Your task to perform on an android device: Clear the shopping cart on bestbuy. Image 0: 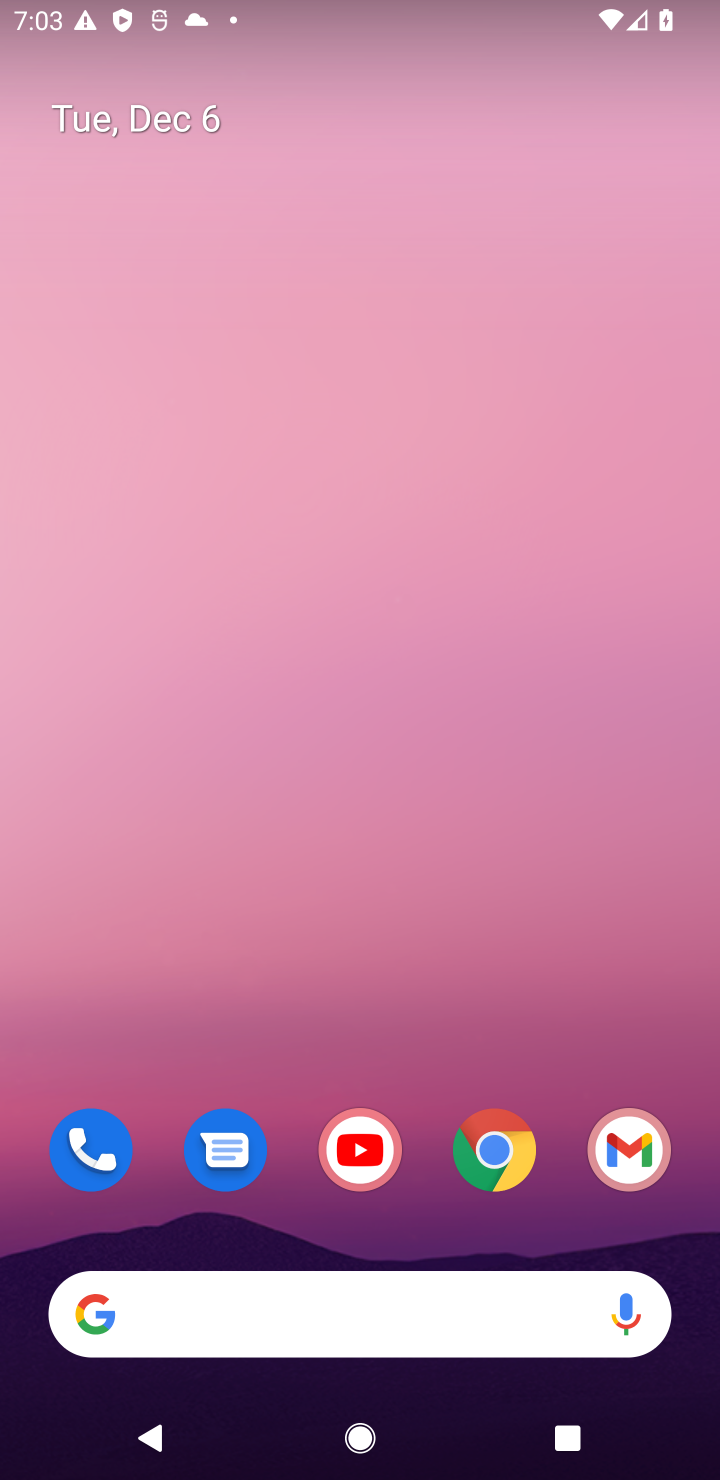
Step 0: click (496, 1159)
Your task to perform on an android device: Clear the shopping cart on bestbuy. Image 1: 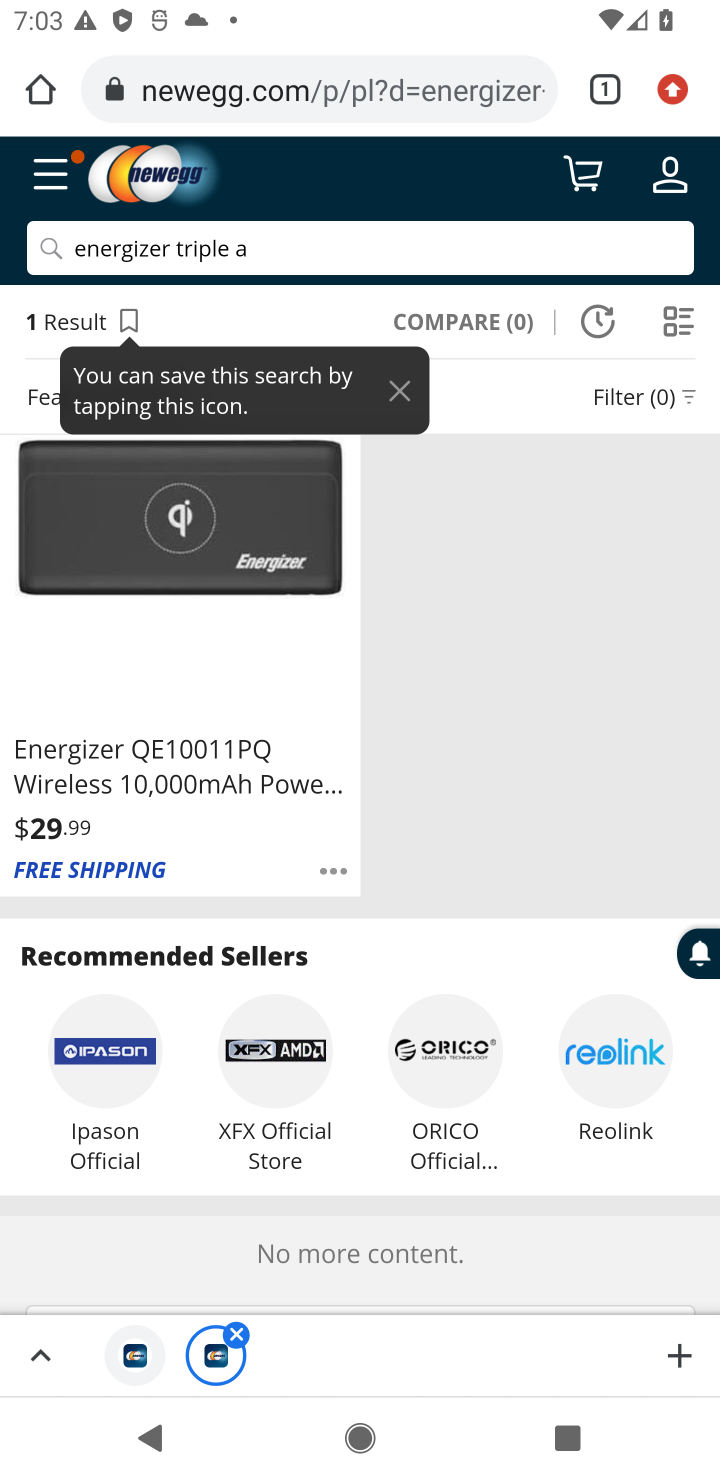
Step 1: click (343, 96)
Your task to perform on an android device: Clear the shopping cart on bestbuy. Image 2: 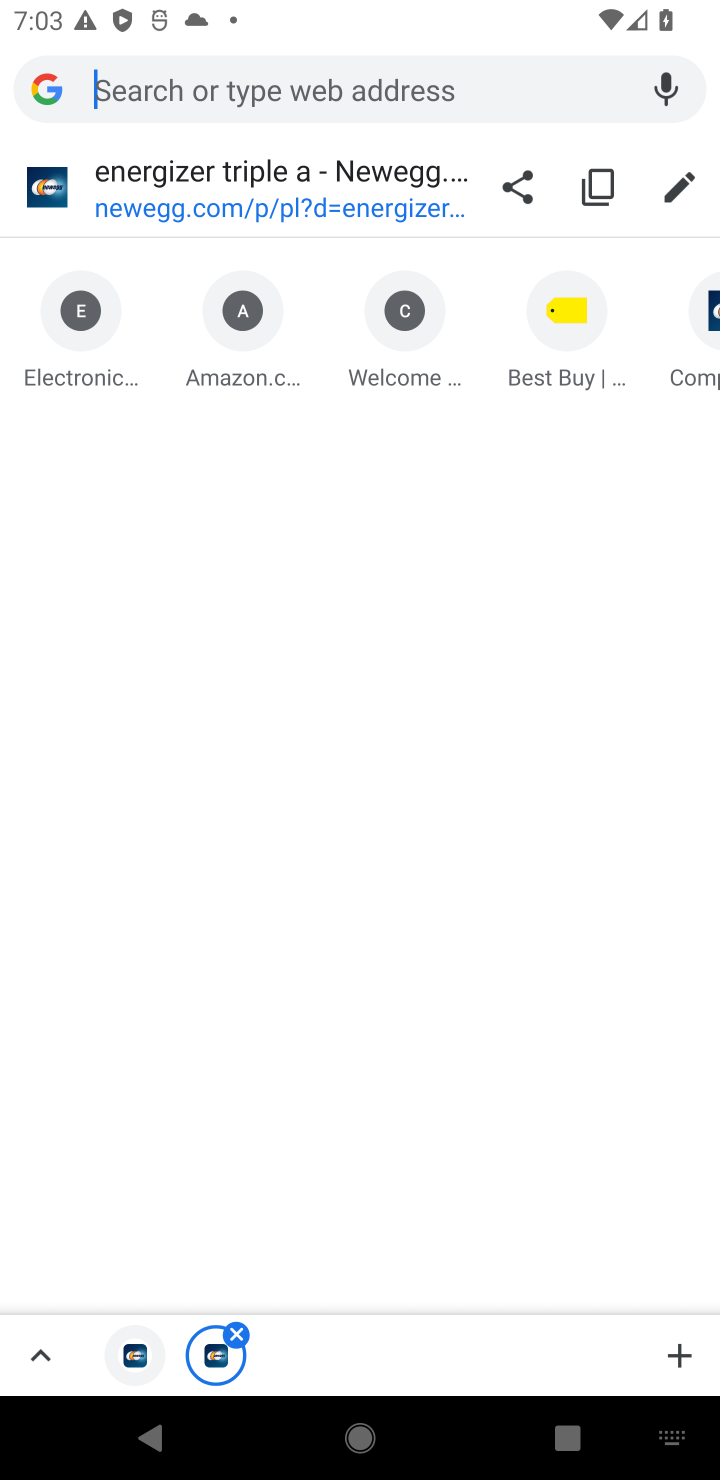
Step 2: click (564, 322)
Your task to perform on an android device: Clear the shopping cart on bestbuy. Image 3: 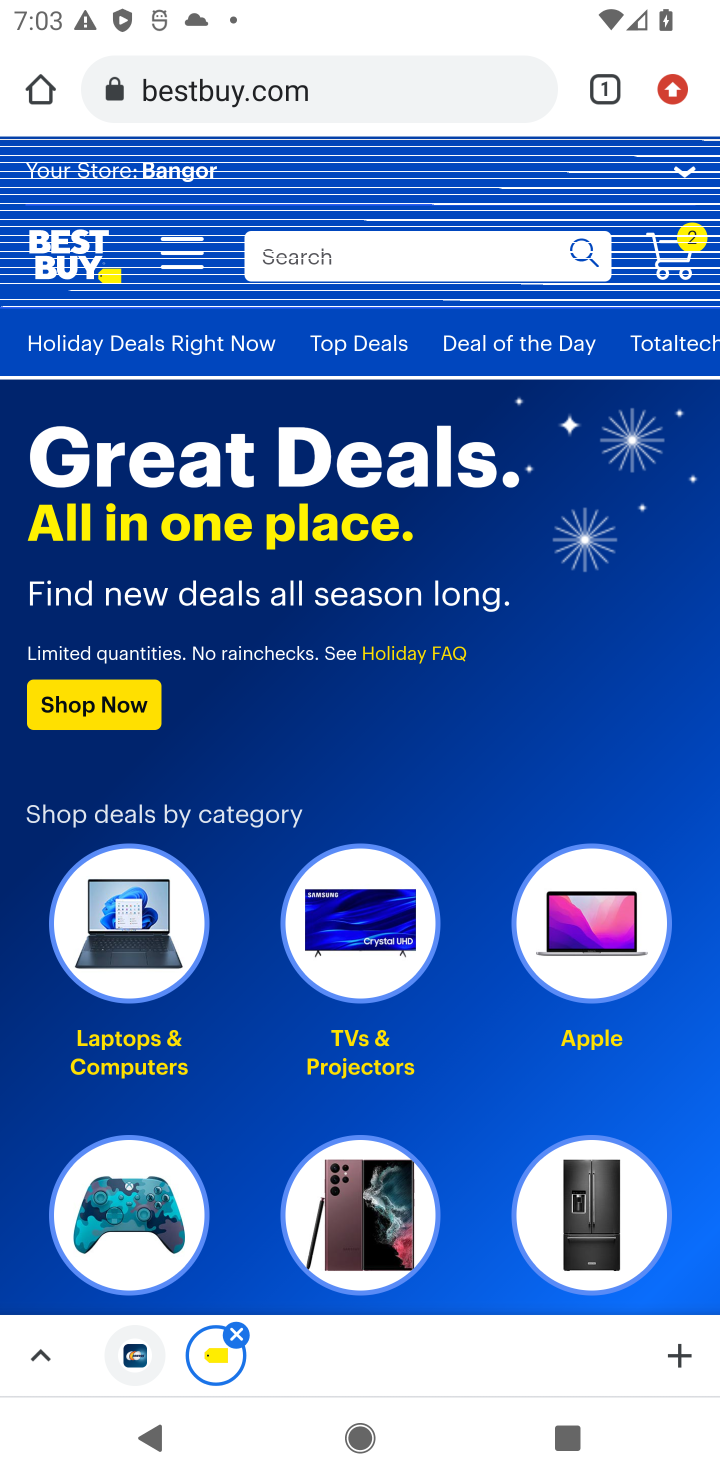
Step 3: click (665, 262)
Your task to perform on an android device: Clear the shopping cart on bestbuy. Image 4: 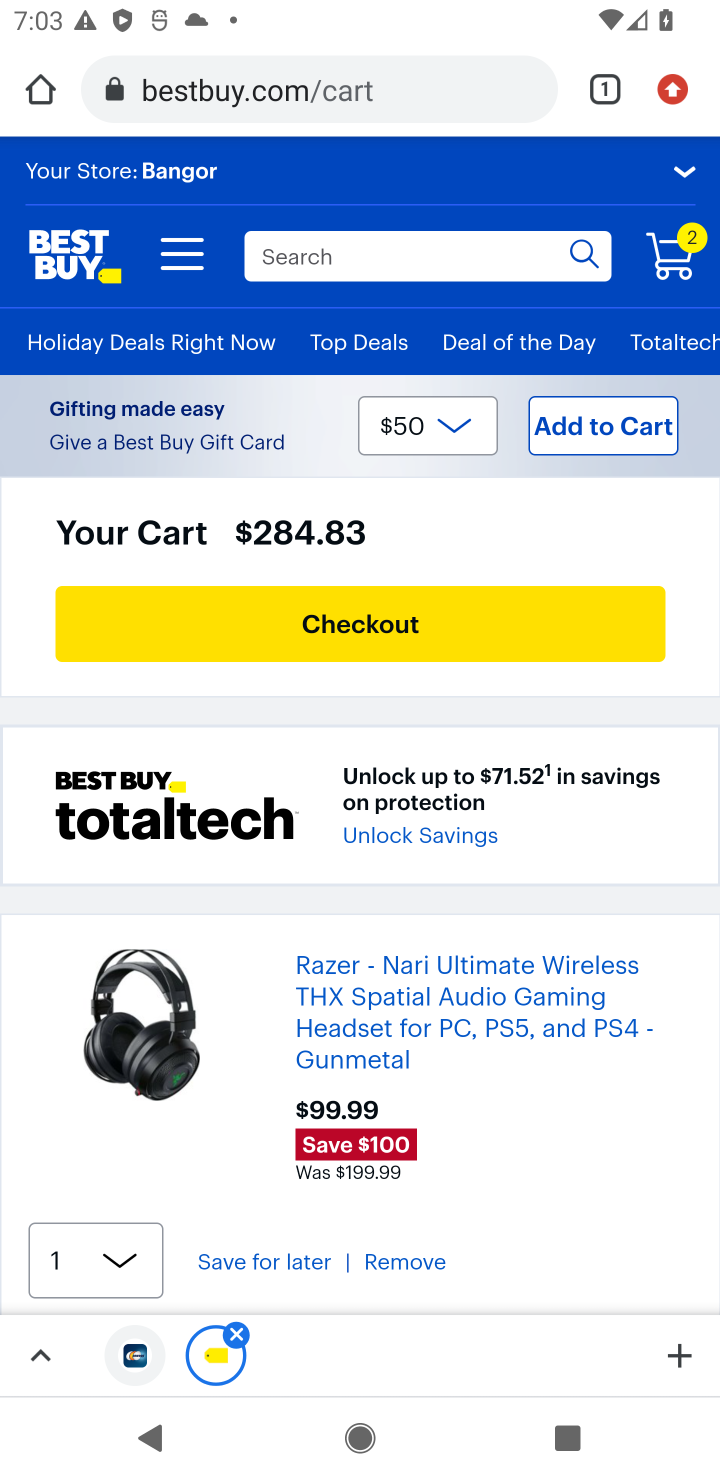
Step 4: click (387, 1264)
Your task to perform on an android device: Clear the shopping cart on bestbuy. Image 5: 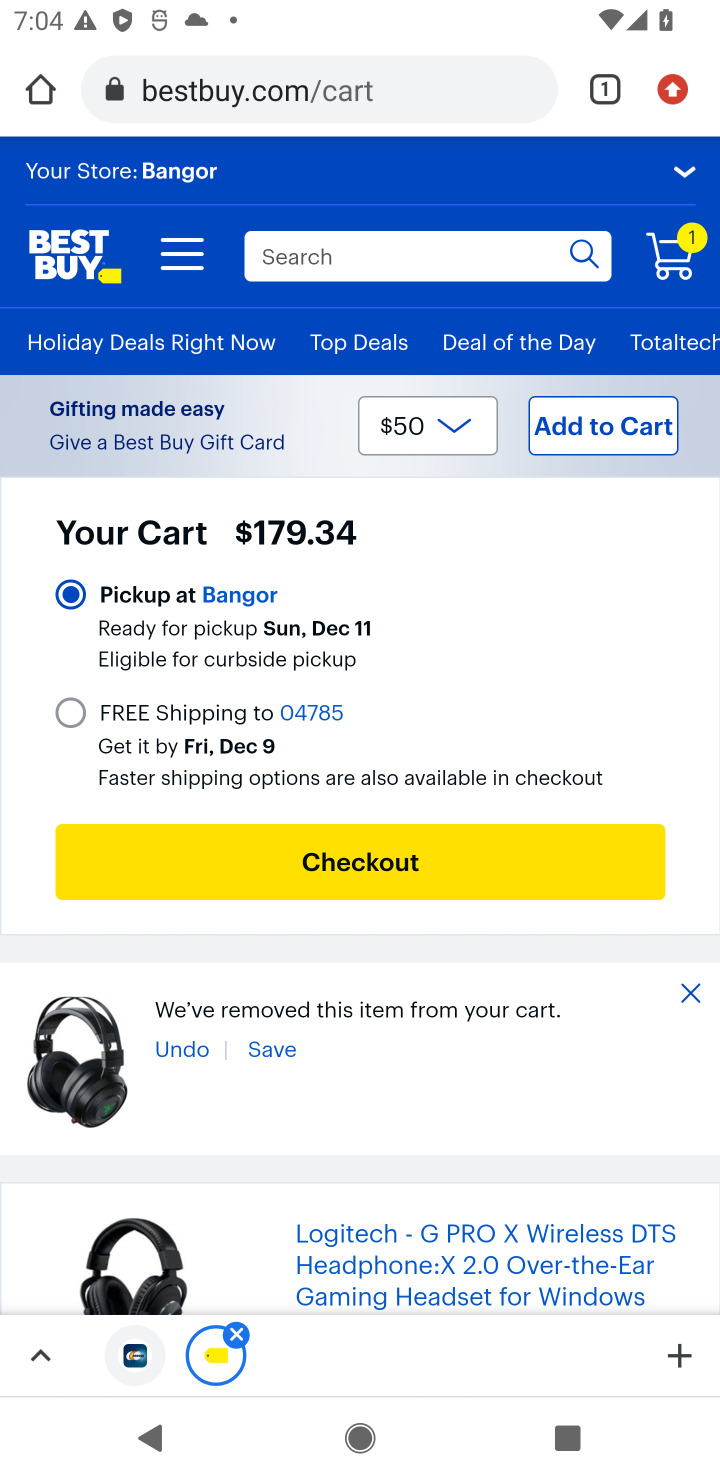
Step 5: drag from (513, 1114) to (499, 537)
Your task to perform on an android device: Clear the shopping cart on bestbuy. Image 6: 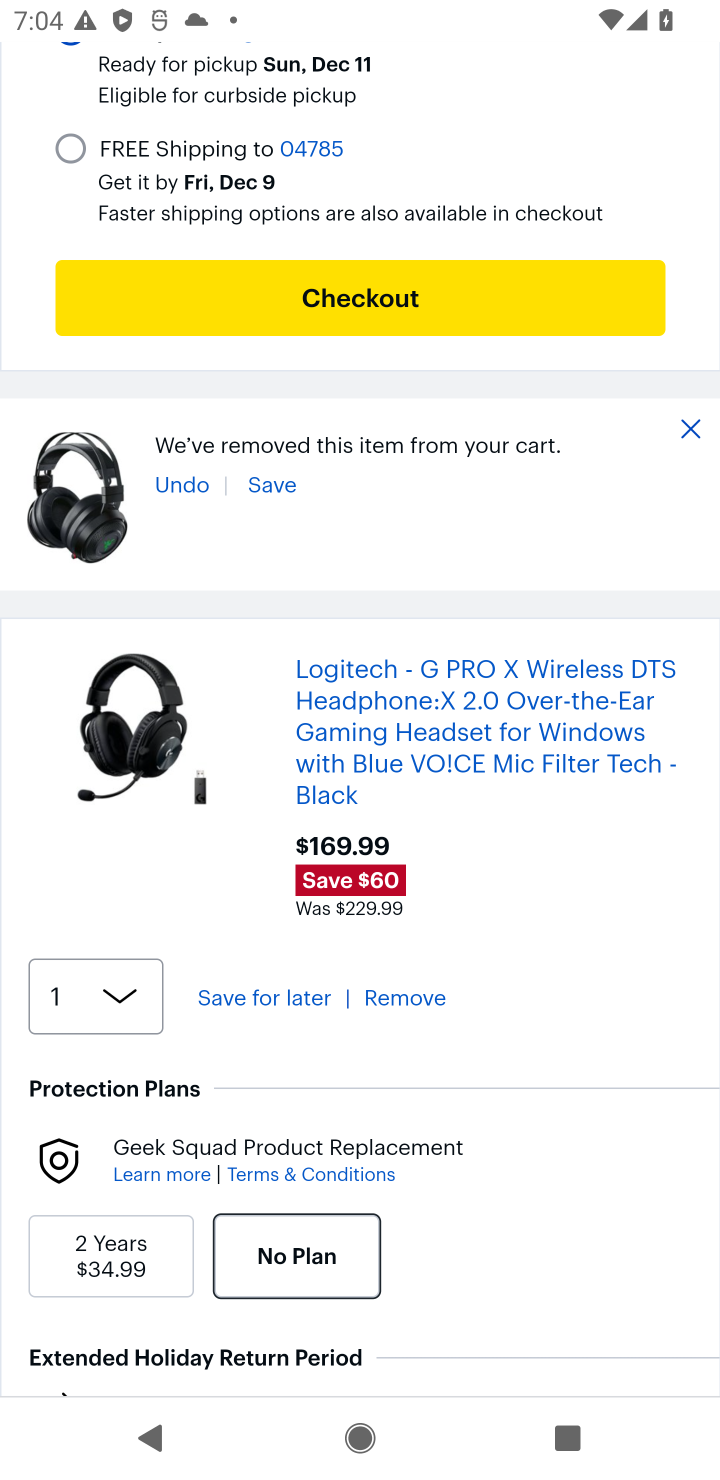
Step 6: click (378, 998)
Your task to perform on an android device: Clear the shopping cart on bestbuy. Image 7: 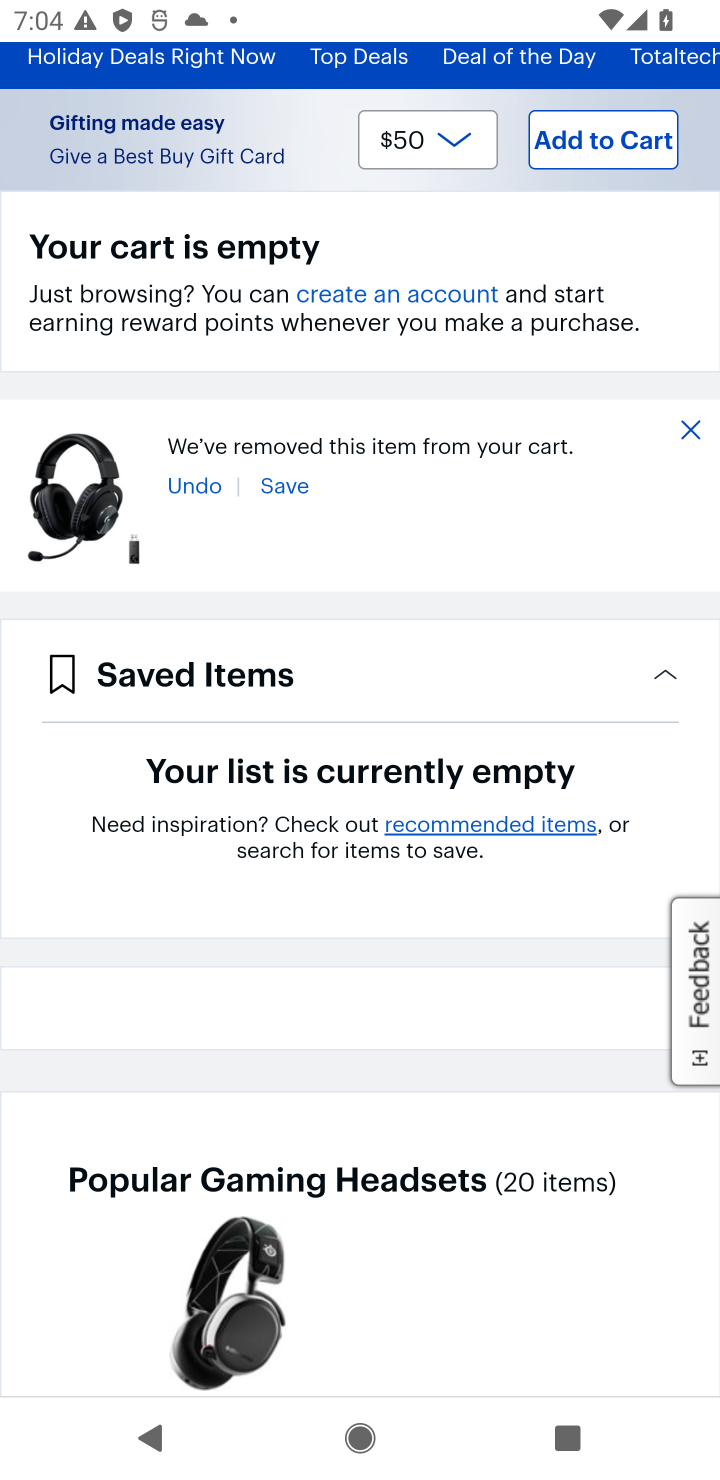
Step 7: task complete